Your task to perform on an android device: Go to internet settings Image 0: 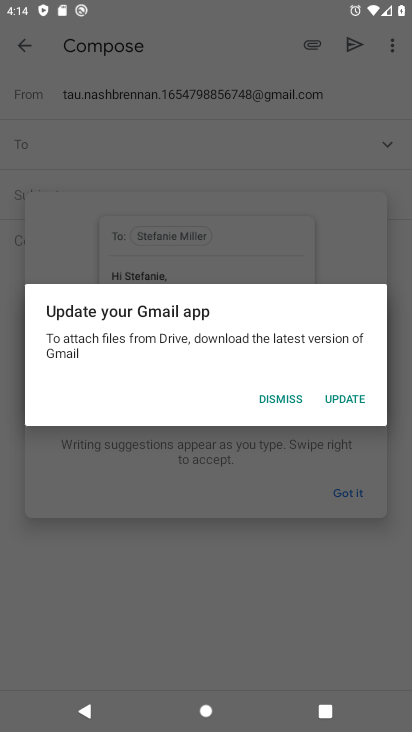
Step 0: press home button
Your task to perform on an android device: Go to internet settings Image 1: 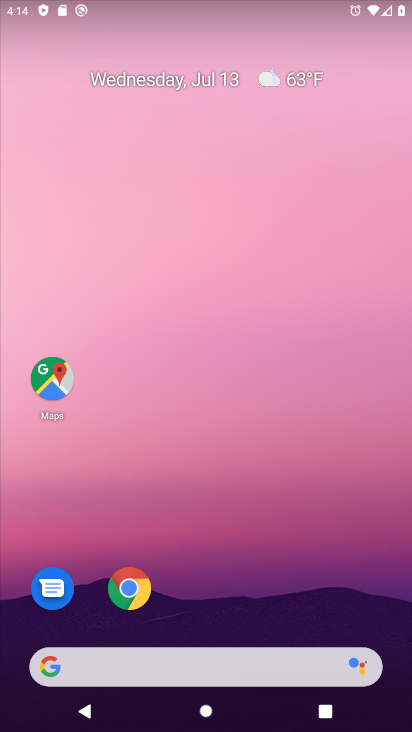
Step 1: drag from (203, 665) to (251, 135)
Your task to perform on an android device: Go to internet settings Image 2: 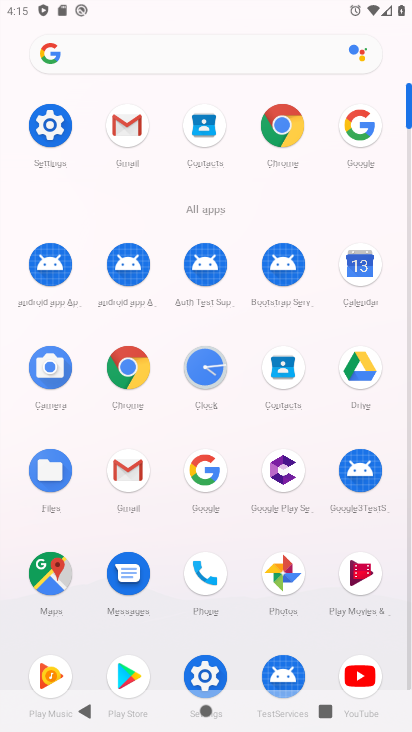
Step 2: click (49, 126)
Your task to perform on an android device: Go to internet settings Image 3: 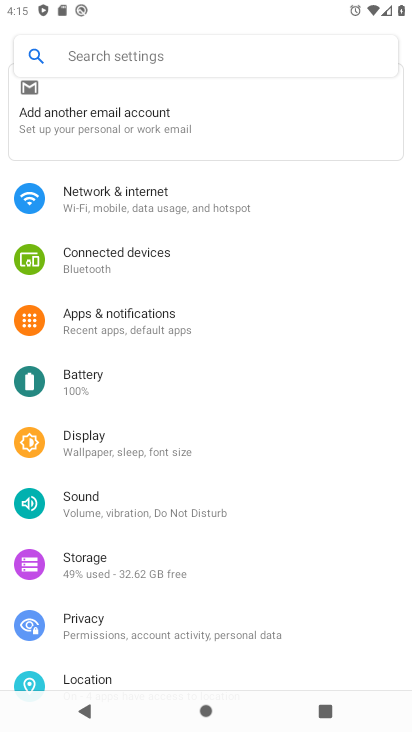
Step 3: click (99, 203)
Your task to perform on an android device: Go to internet settings Image 4: 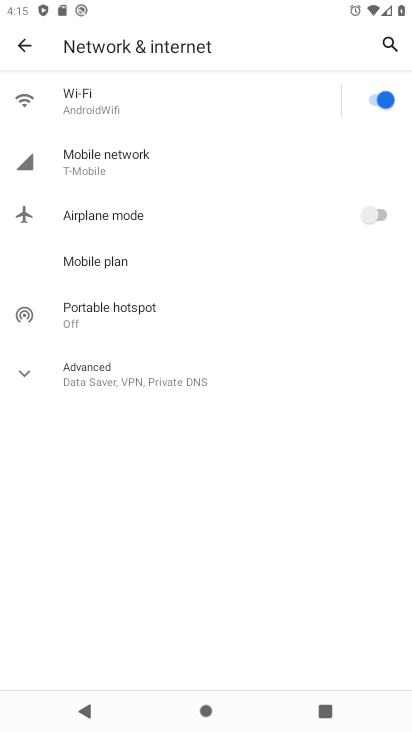
Step 4: task complete